Your task to perform on an android device: allow notifications from all sites in the chrome app Image 0: 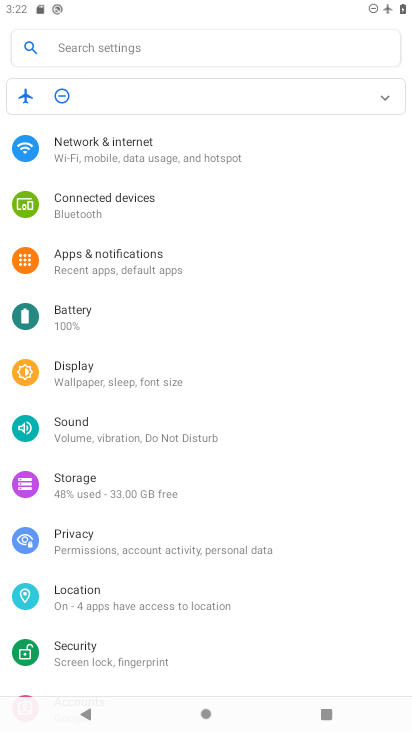
Step 0: press home button
Your task to perform on an android device: allow notifications from all sites in the chrome app Image 1: 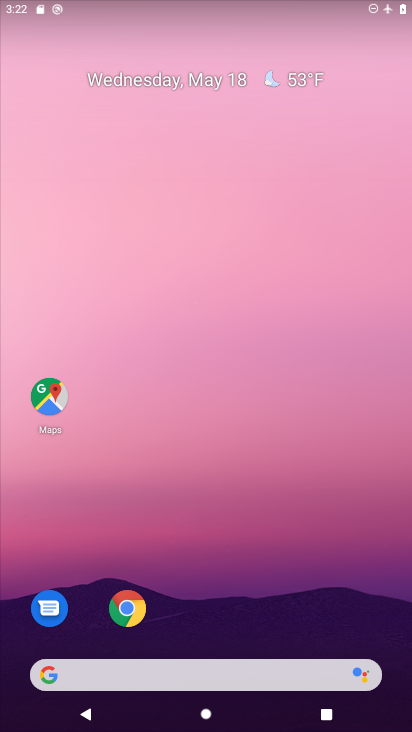
Step 1: drag from (163, 626) to (130, 302)
Your task to perform on an android device: allow notifications from all sites in the chrome app Image 2: 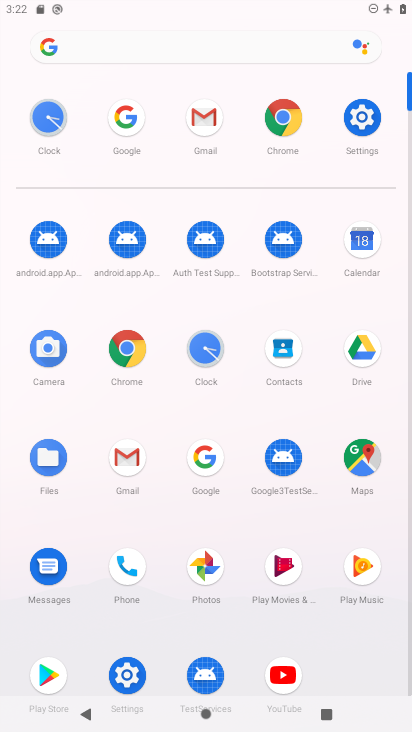
Step 2: click (281, 122)
Your task to perform on an android device: allow notifications from all sites in the chrome app Image 3: 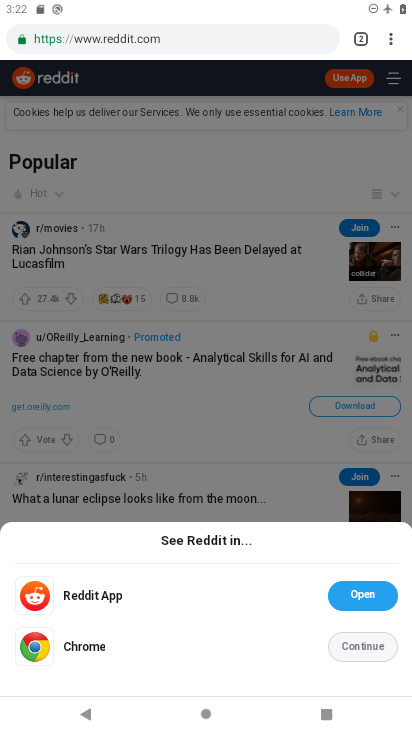
Step 3: click (391, 36)
Your task to perform on an android device: allow notifications from all sites in the chrome app Image 4: 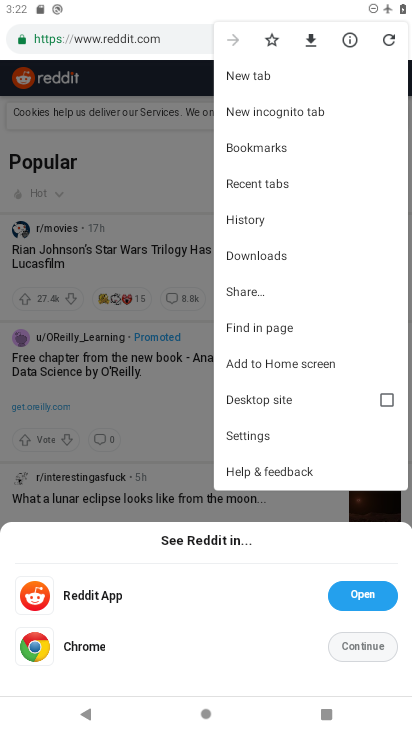
Step 4: click (247, 434)
Your task to perform on an android device: allow notifications from all sites in the chrome app Image 5: 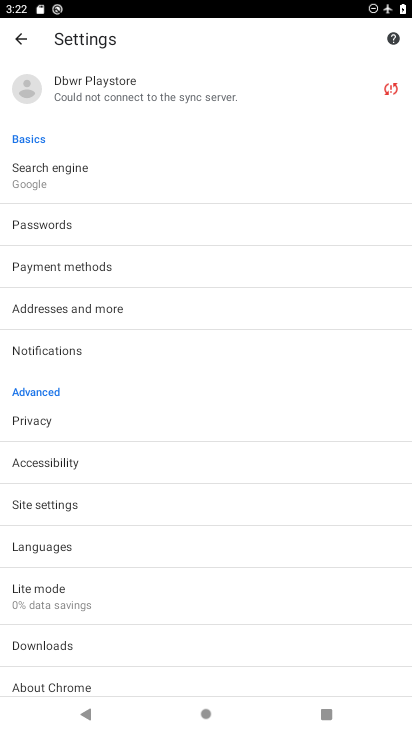
Step 5: click (39, 507)
Your task to perform on an android device: allow notifications from all sites in the chrome app Image 6: 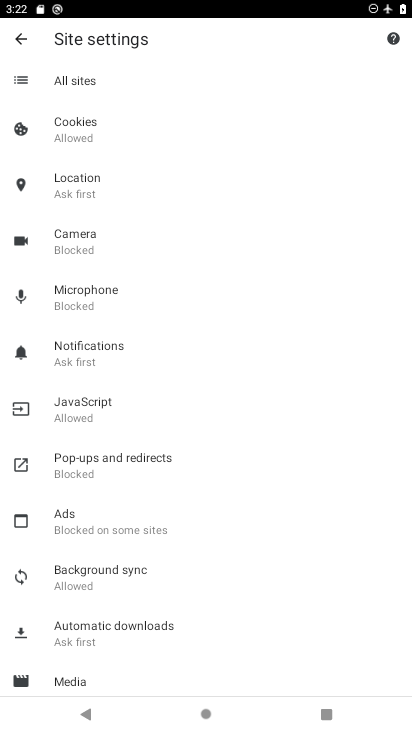
Step 6: click (73, 351)
Your task to perform on an android device: allow notifications from all sites in the chrome app Image 7: 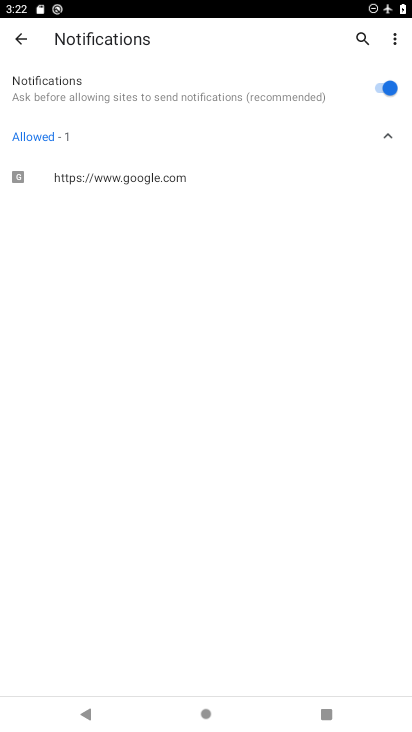
Step 7: task complete